Your task to perform on an android device: turn on notifications settings in the gmail app Image 0: 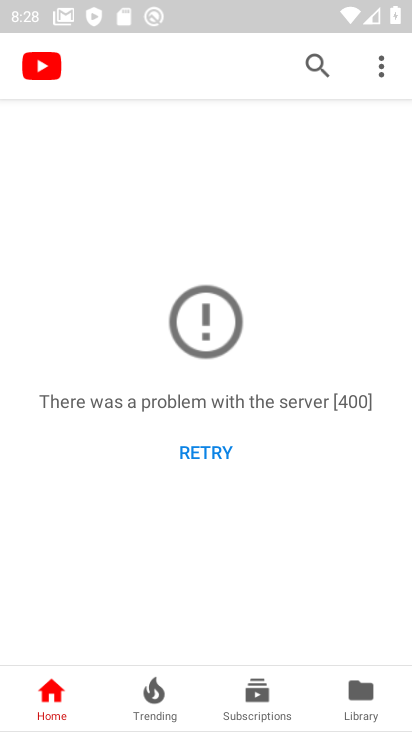
Step 0: press home button
Your task to perform on an android device: turn on notifications settings in the gmail app Image 1: 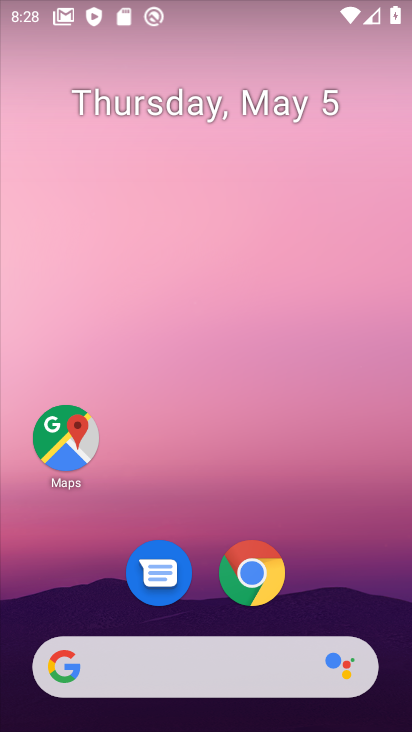
Step 1: drag from (208, 427) to (268, 25)
Your task to perform on an android device: turn on notifications settings in the gmail app Image 2: 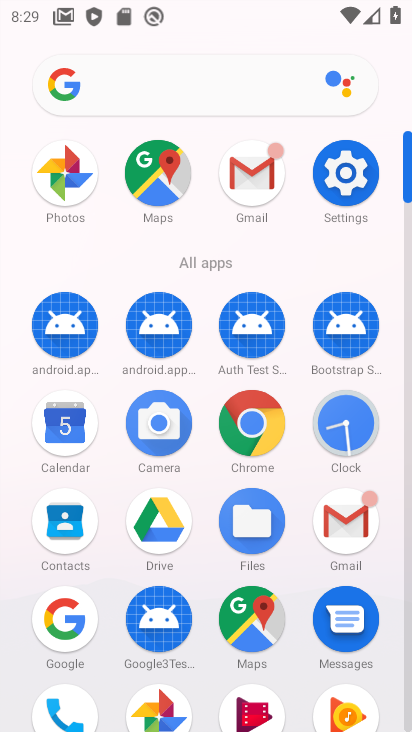
Step 2: click (340, 516)
Your task to perform on an android device: turn on notifications settings in the gmail app Image 3: 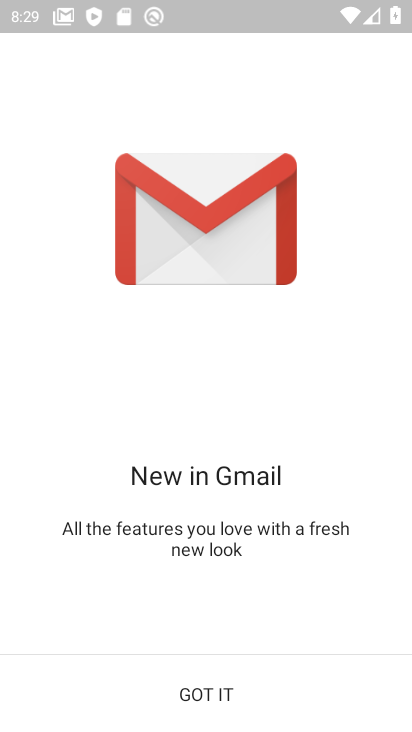
Step 3: click (213, 697)
Your task to perform on an android device: turn on notifications settings in the gmail app Image 4: 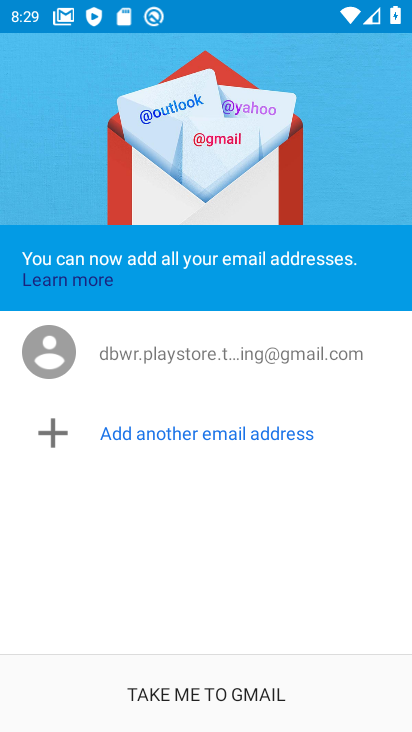
Step 4: click (213, 697)
Your task to perform on an android device: turn on notifications settings in the gmail app Image 5: 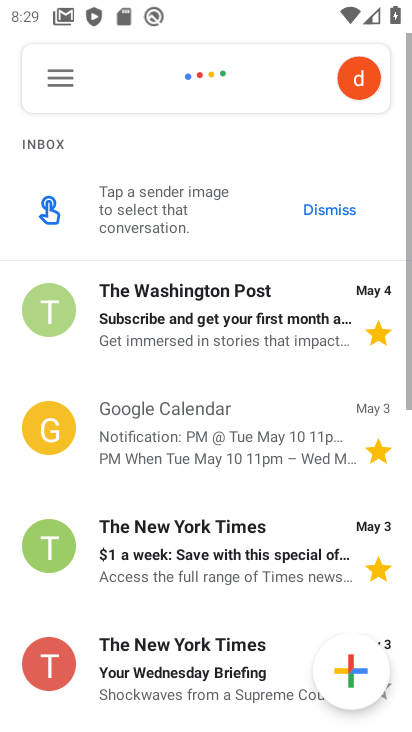
Step 5: click (51, 78)
Your task to perform on an android device: turn on notifications settings in the gmail app Image 6: 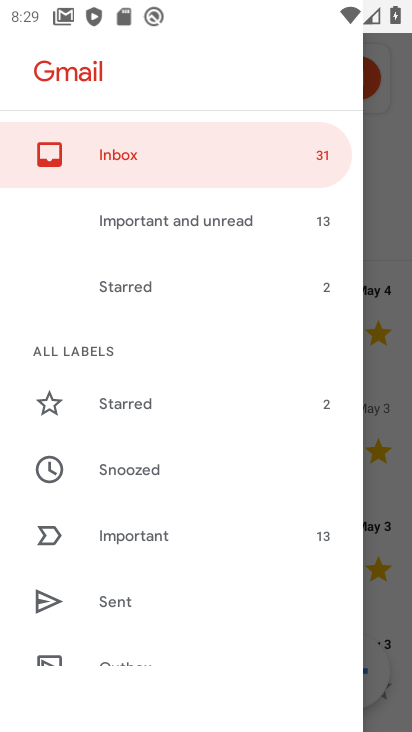
Step 6: drag from (136, 598) to (166, 19)
Your task to perform on an android device: turn on notifications settings in the gmail app Image 7: 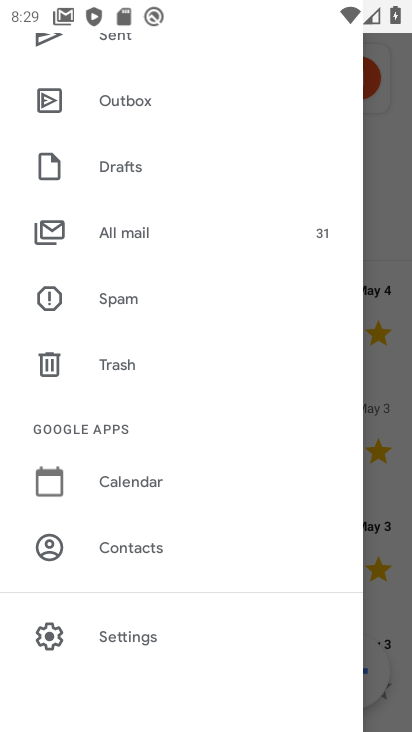
Step 7: click (125, 632)
Your task to perform on an android device: turn on notifications settings in the gmail app Image 8: 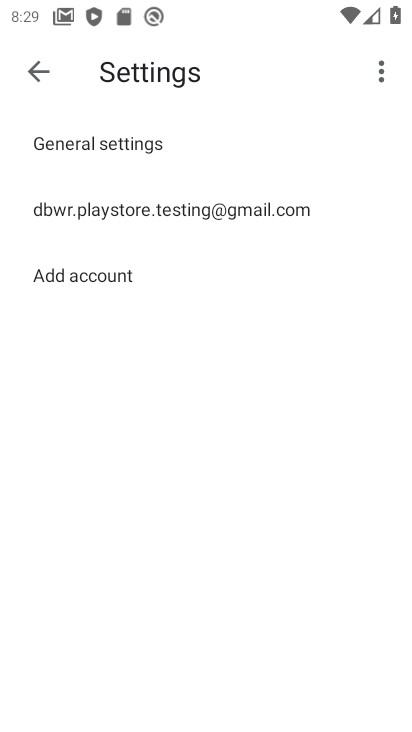
Step 8: click (140, 155)
Your task to perform on an android device: turn on notifications settings in the gmail app Image 9: 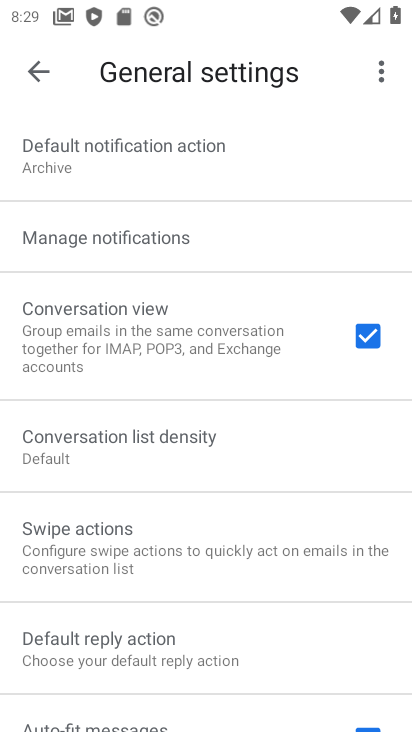
Step 9: click (139, 232)
Your task to perform on an android device: turn on notifications settings in the gmail app Image 10: 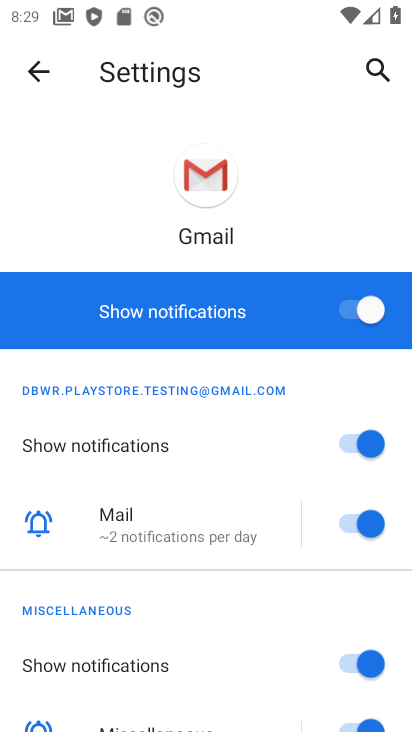
Step 10: task complete